Your task to perform on an android device: Empty the shopping cart on bestbuy.com. Image 0: 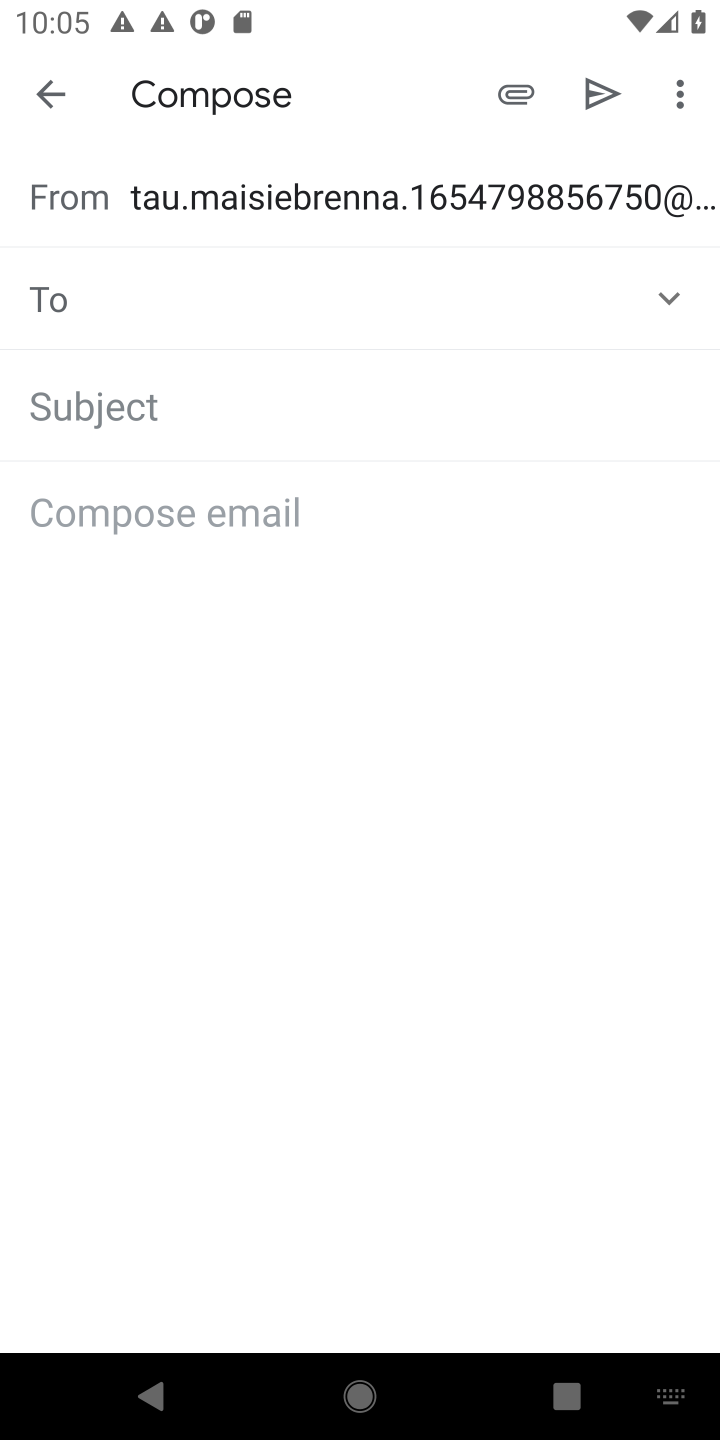
Step 0: press home button
Your task to perform on an android device: Empty the shopping cart on bestbuy.com. Image 1: 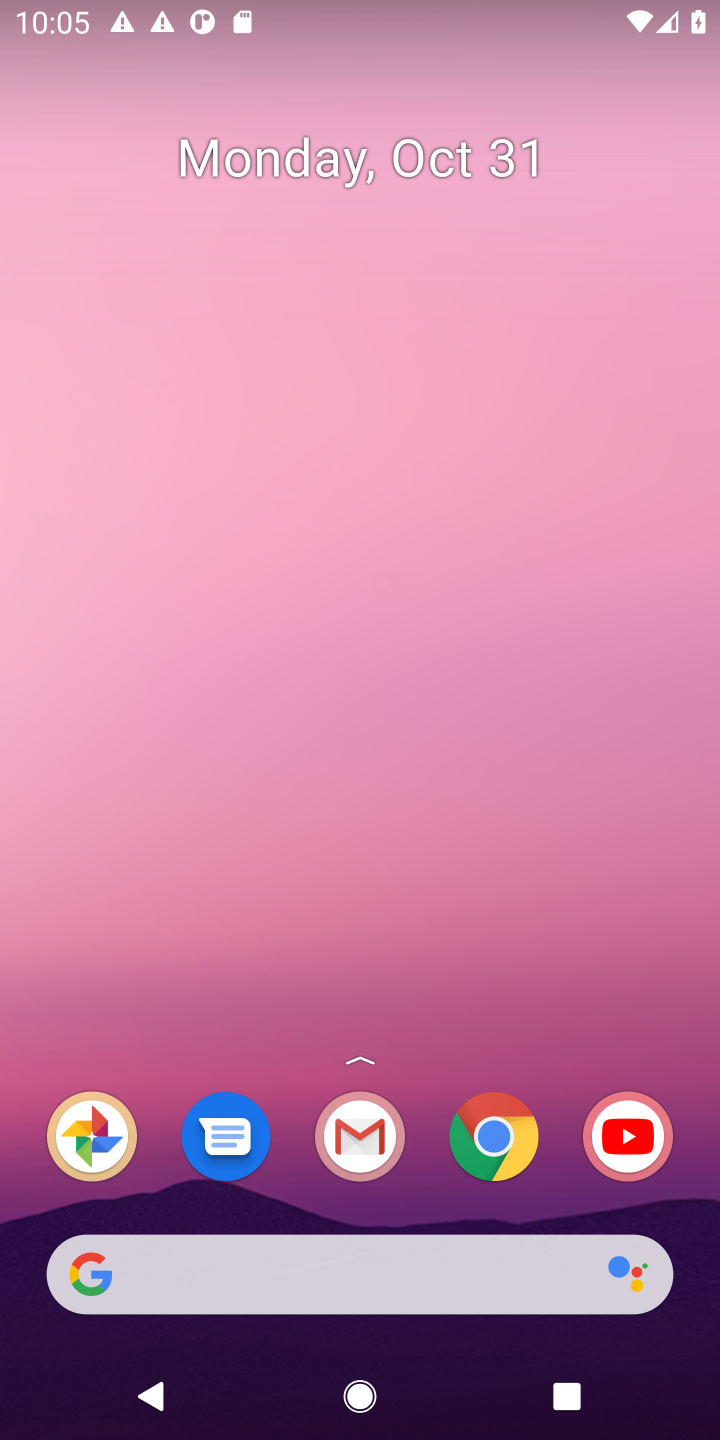
Step 1: click (122, 1272)
Your task to perform on an android device: Empty the shopping cart on bestbuy.com. Image 2: 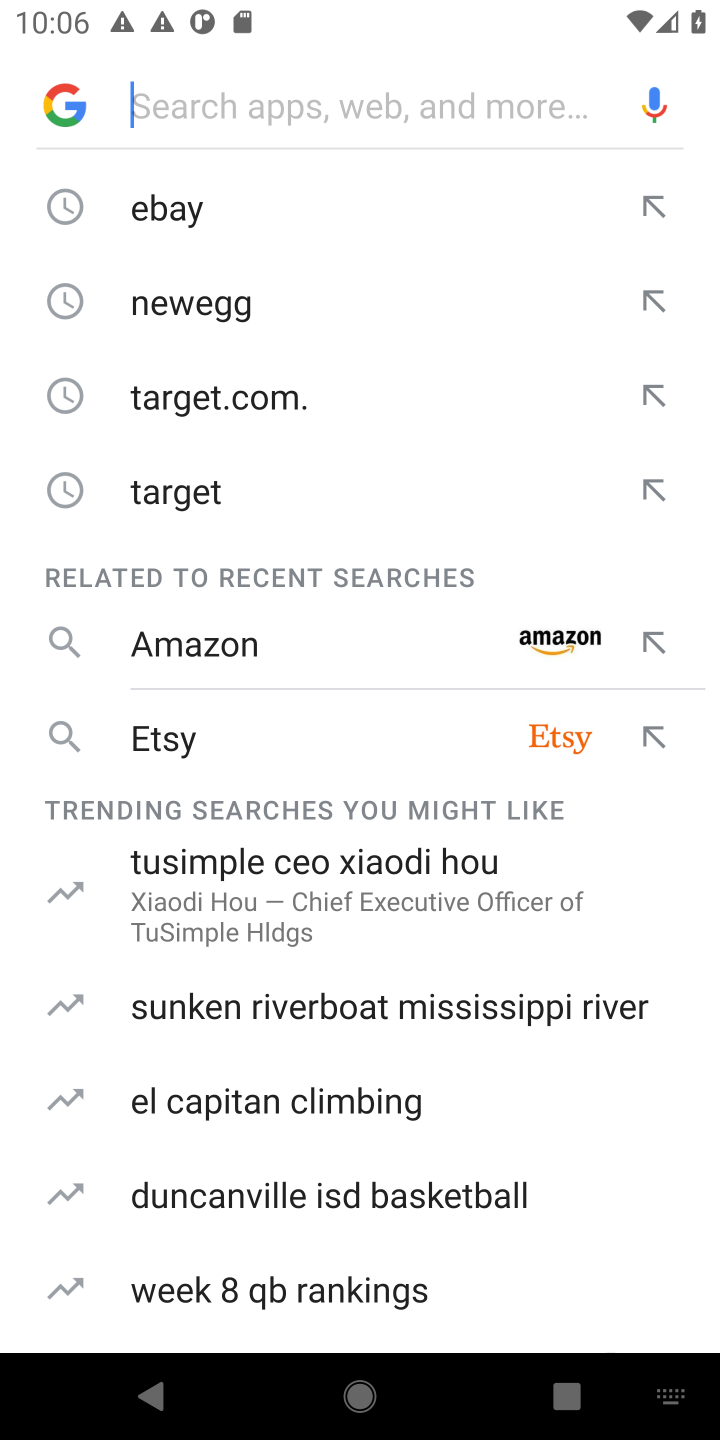
Step 2: type "bestbuy.com"
Your task to perform on an android device: Empty the shopping cart on bestbuy.com. Image 3: 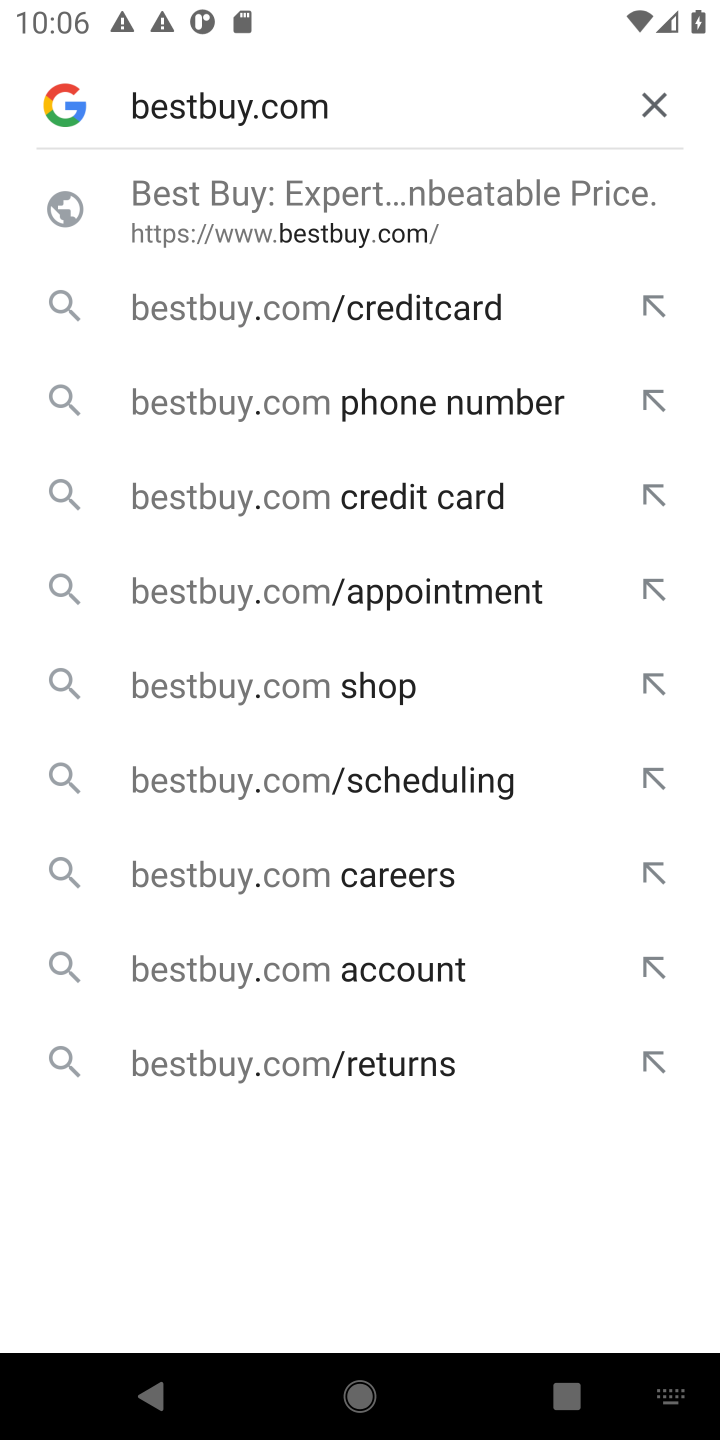
Step 3: press enter
Your task to perform on an android device: Empty the shopping cart on bestbuy.com. Image 4: 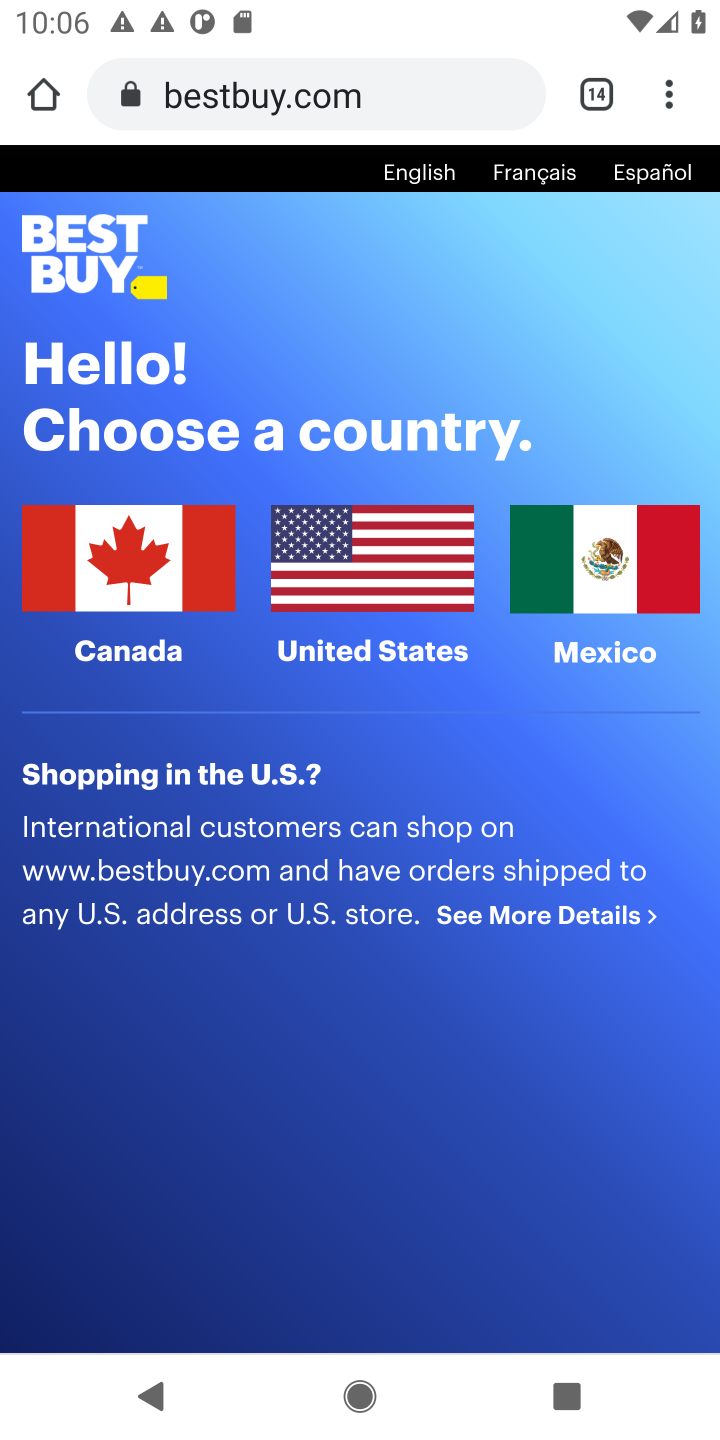
Step 4: click (144, 578)
Your task to perform on an android device: Empty the shopping cart on bestbuy.com. Image 5: 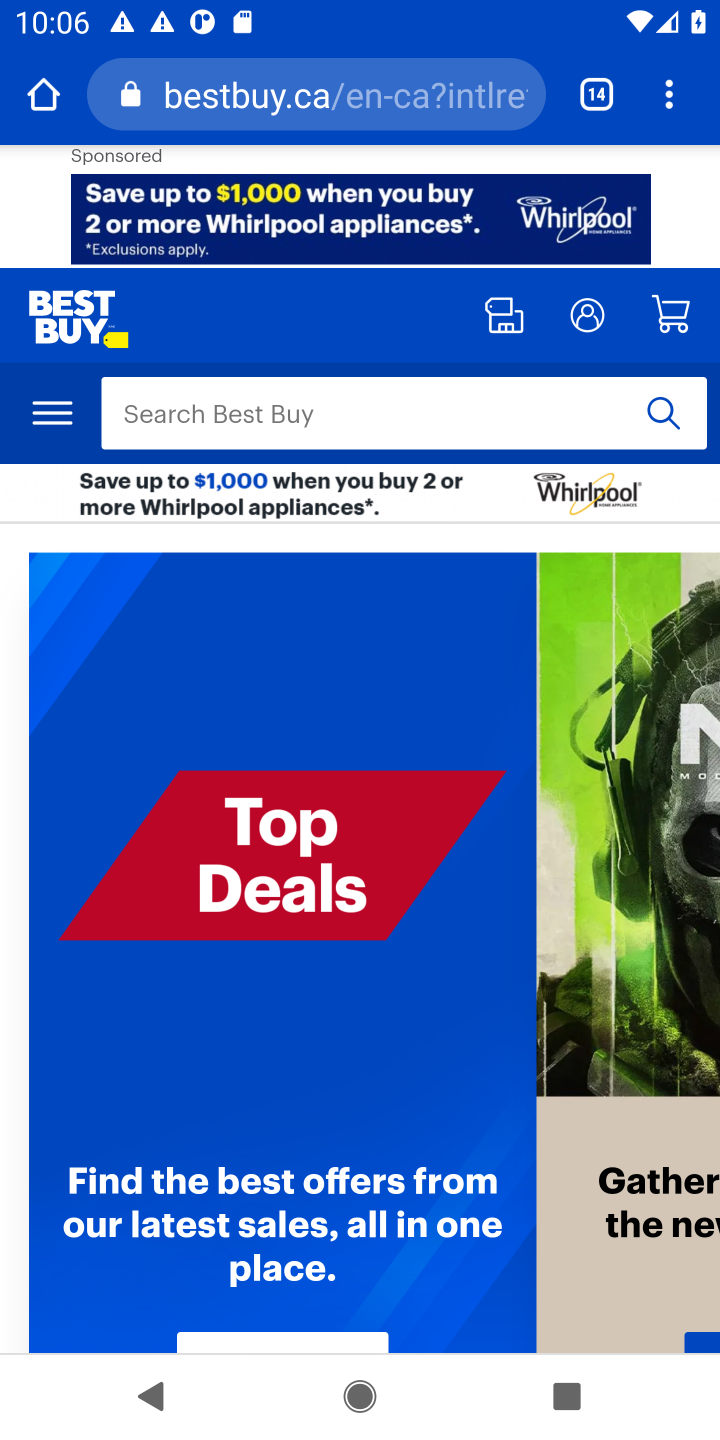
Step 5: click (679, 296)
Your task to perform on an android device: Empty the shopping cart on bestbuy.com. Image 6: 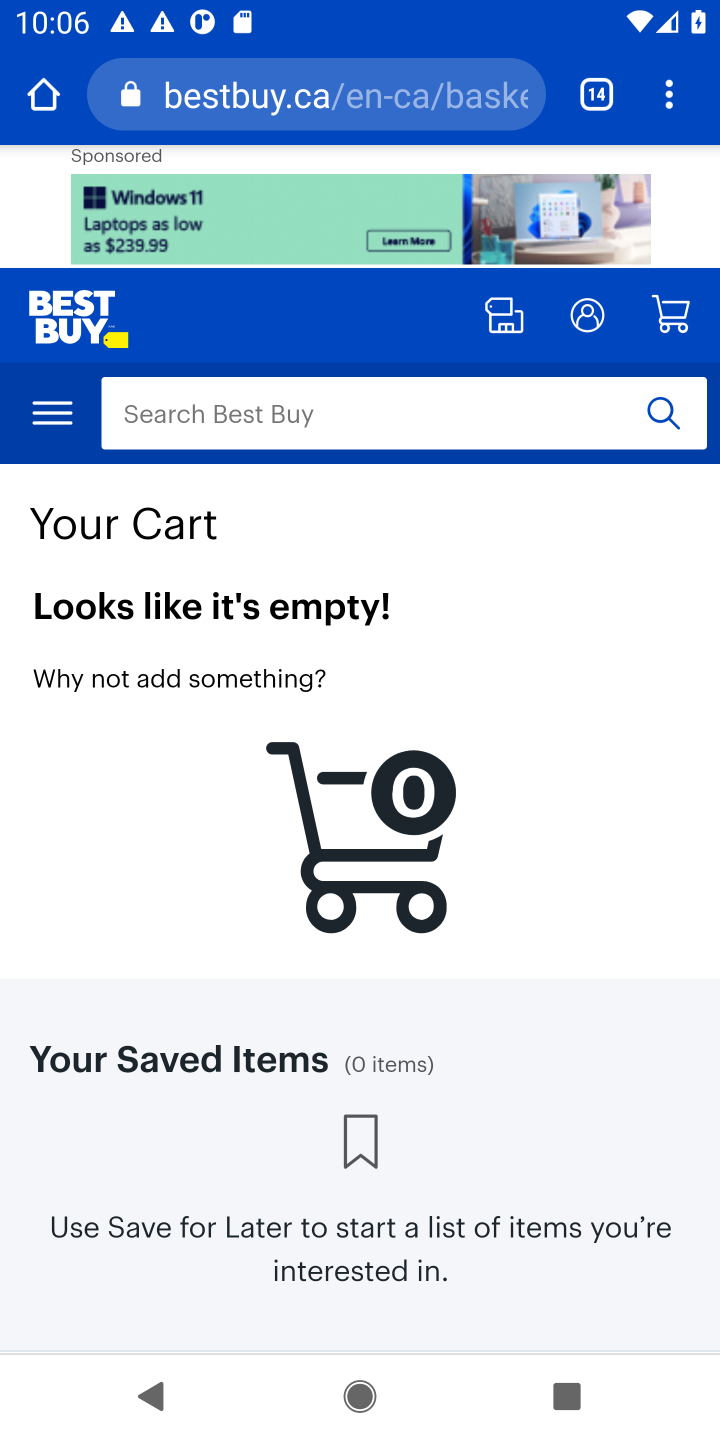
Step 6: task complete